Your task to perform on an android device: add a label to a message in the gmail app Image 0: 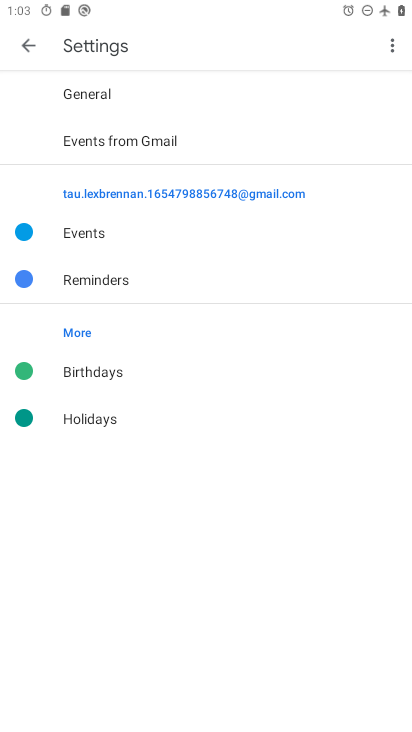
Step 0: press home button
Your task to perform on an android device: add a label to a message in the gmail app Image 1: 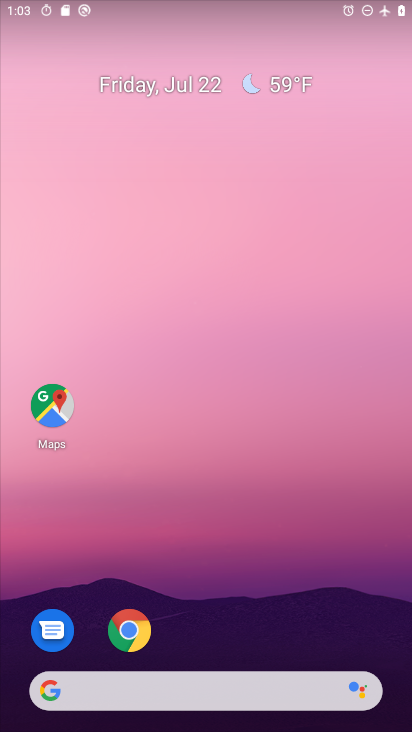
Step 1: drag from (234, 598) to (277, 128)
Your task to perform on an android device: add a label to a message in the gmail app Image 2: 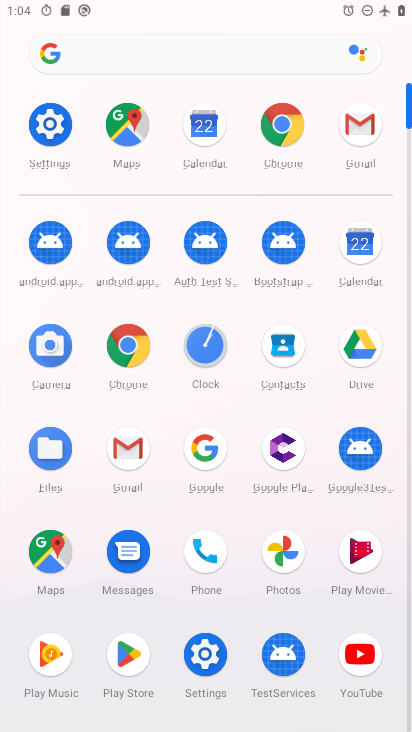
Step 2: click (364, 123)
Your task to perform on an android device: add a label to a message in the gmail app Image 3: 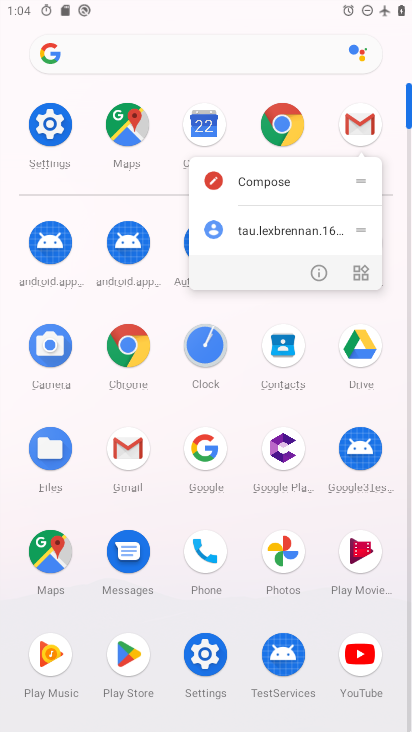
Step 3: click (364, 123)
Your task to perform on an android device: add a label to a message in the gmail app Image 4: 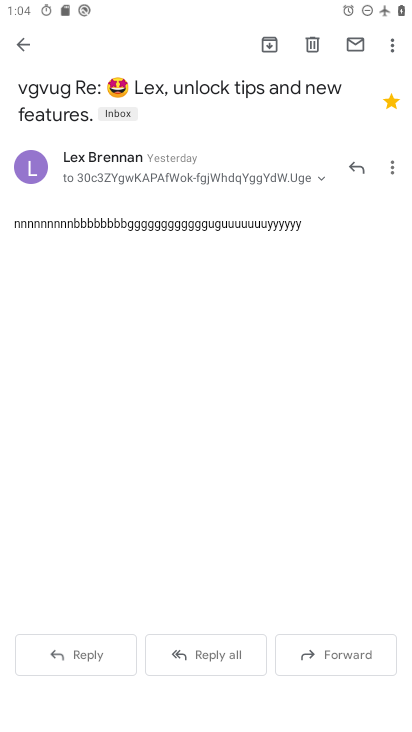
Step 4: click (394, 50)
Your task to perform on an android device: add a label to a message in the gmail app Image 5: 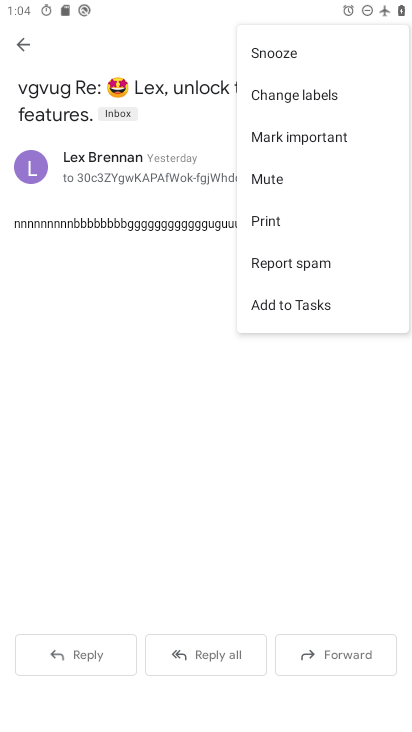
Step 5: click (268, 96)
Your task to perform on an android device: add a label to a message in the gmail app Image 6: 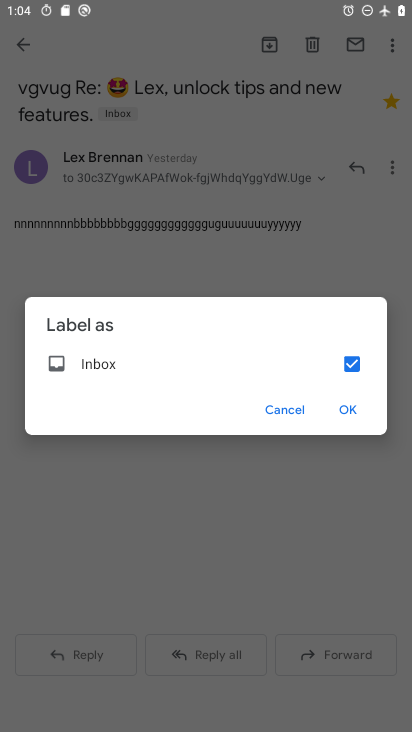
Step 6: click (355, 407)
Your task to perform on an android device: add a label to a message in the gmail app Image 7: 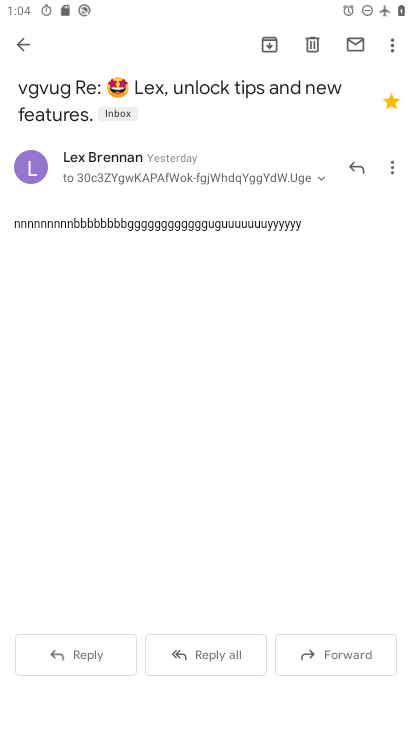
Step 7: task complete